Your task to perform on an android device: change your default location settings in chrome Image 0: 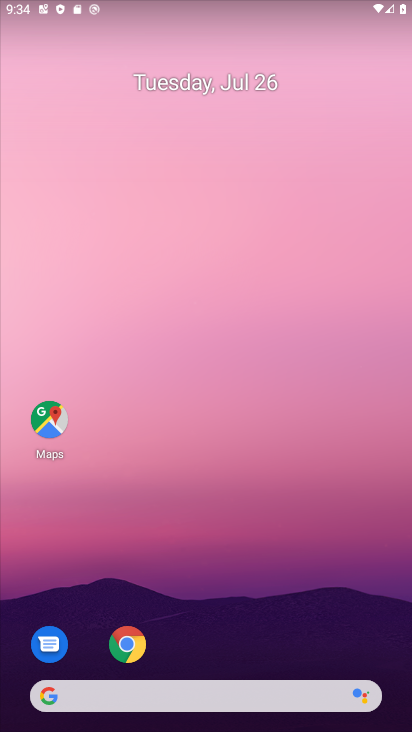
Step 0: drag from (244, 653) to (289, 202)
Your task to perform on an android device: change your default location settings in chrome Image 1: 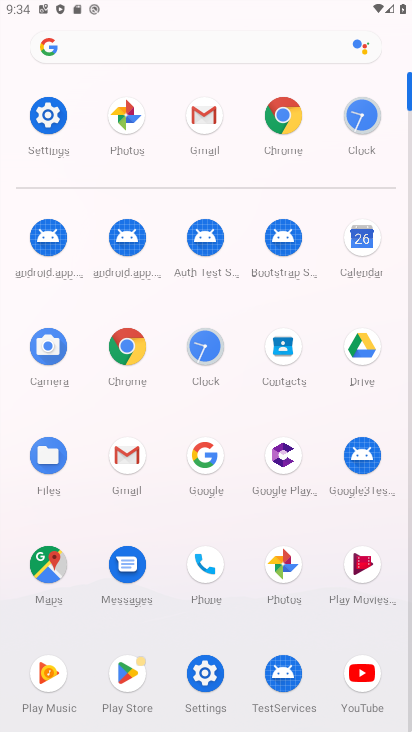
Step 1: click (132, 358)
Your task to perform on an android device: change your default location settings in chrome Image 2: 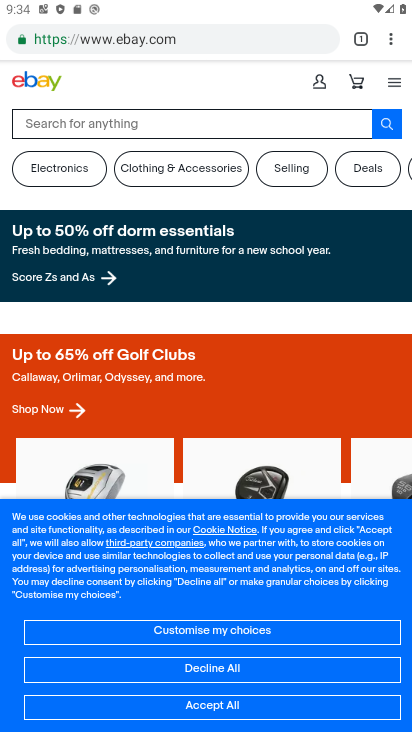
Step 2: click (387, 36)
Your task to perform on an android device: change your default location settings in chrome Image 3: 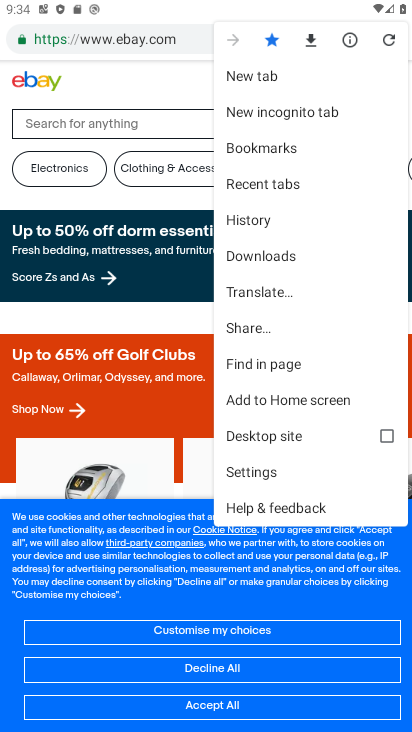
Step 3: click (255, 474)
Your task to perform on an android device: change your default location settings in chrome Image 4: 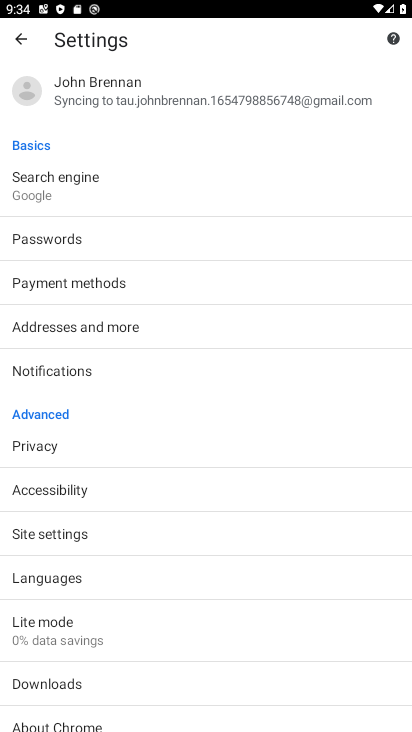
Step 4: click (76, 533)
Your task to perform on an android device: change your default location settings in chrome Image 5: 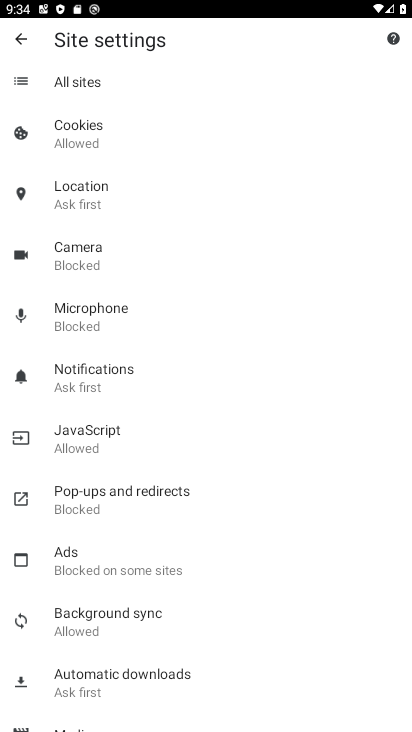
Step 5: click (100, 193)
Your task to perform on an android device: change your default location settings in chrome Image 6: 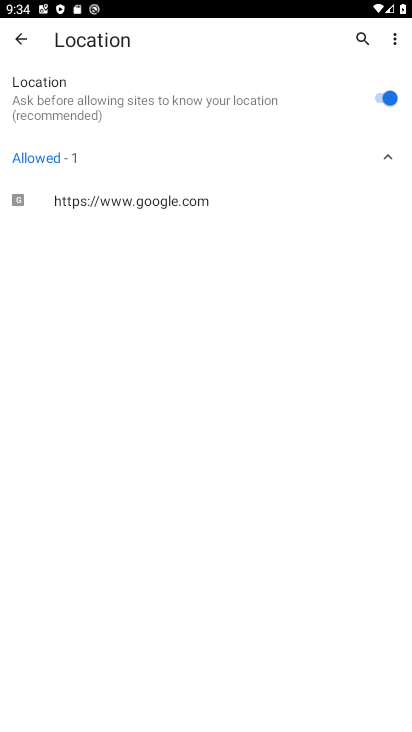
Step 6: click (362, 97)
Your task to perform on an android device: change your default location settings in chrome Image 7: 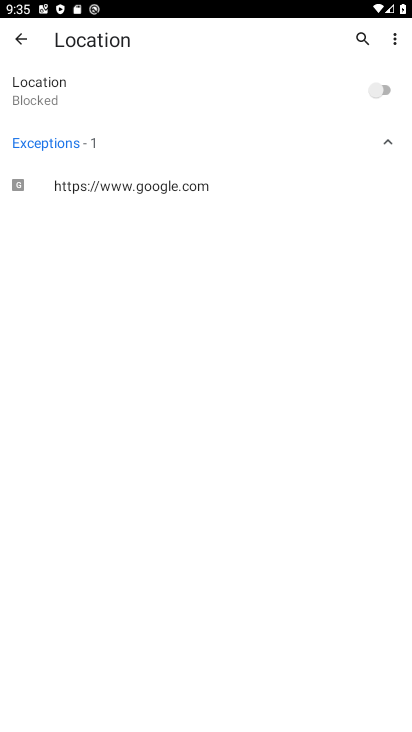
Step 7: task complete